Your task to perform on an android device: turn off improve location accuracy Image 0: 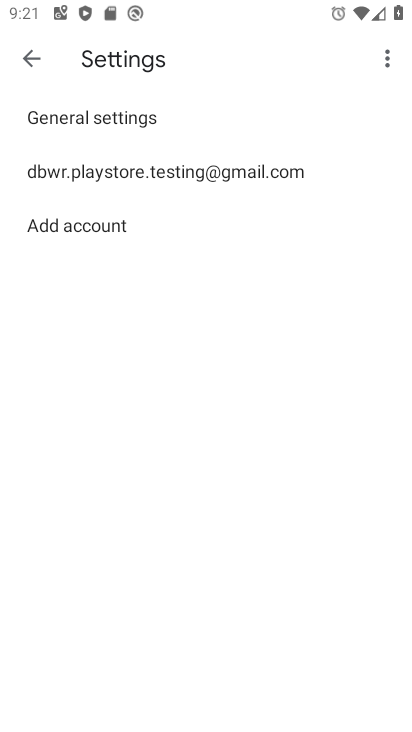
Step 0: drag from (166, 578) to (257, 245)
Your task to perform on an android device: turn off improve location accuracy Image 1: 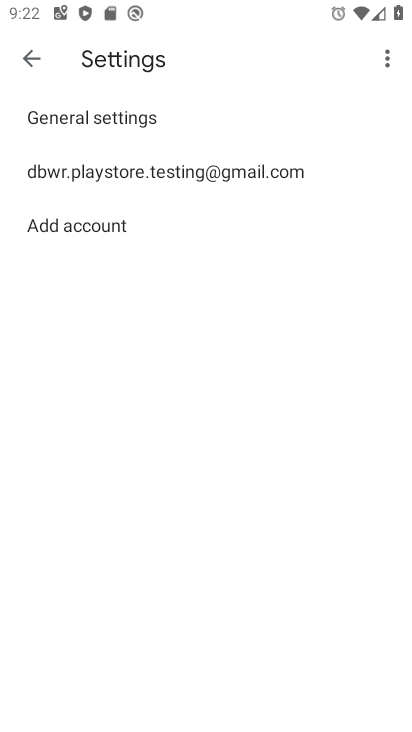
Step 1: press home button
Your task to perform on an android device: turn off improve location accuracy Image 2: 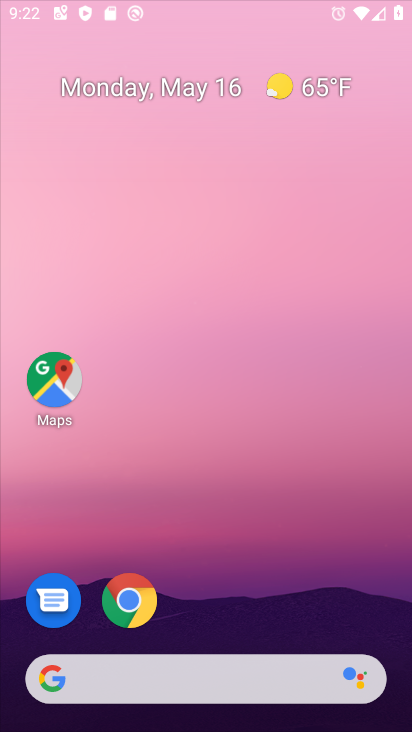
Step 2: drag from (169, 611) to (255, 129)
Your task to perform on an android device: turn off improve location accuracy Image 3: 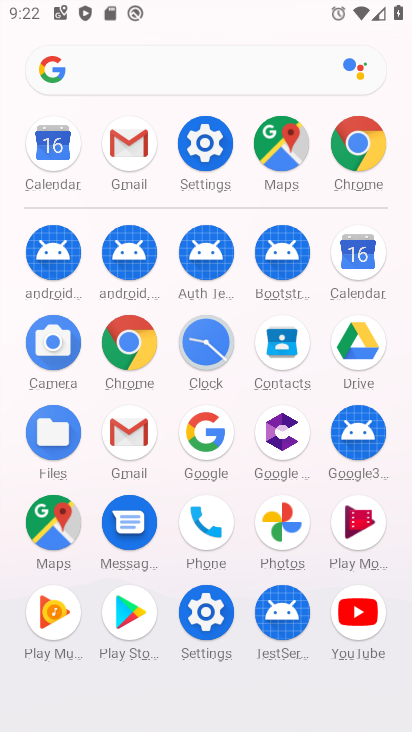
Step 3: click (198, 138)
Your task to perform on an android device: turn off improve location accuracy Image 4: 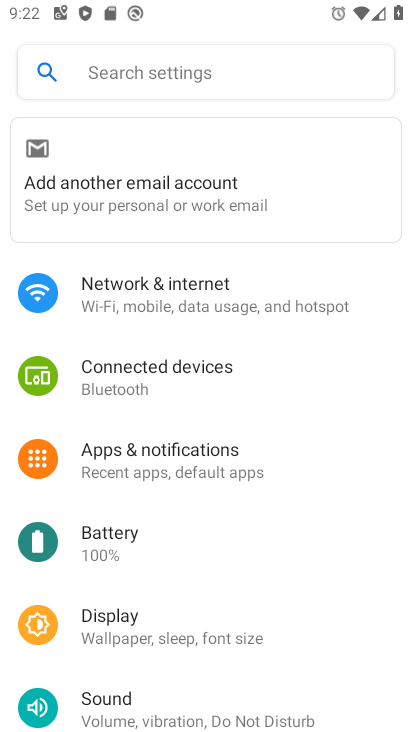
Step 4: drag from (210, 645) to (313, 133)
Your task to perform on an android device: turn off improve location accuracy Image 5: 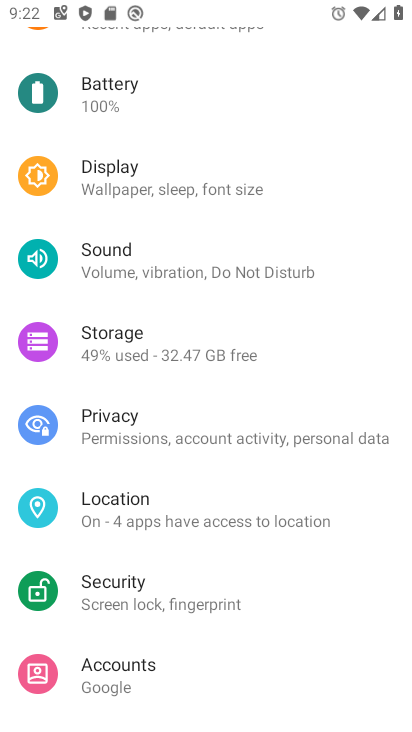
Step 5: drag from (223, 626) to (286, 248)
Your task to perform on an android device: turn off improve location accuracy Image 6: 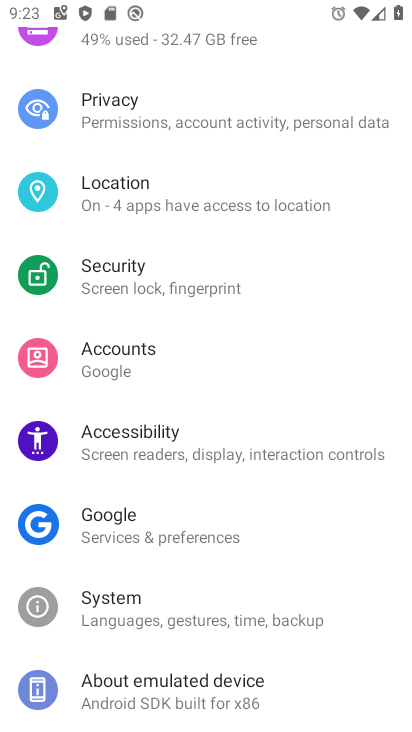
Step 6: click (141, 183)
Your task to perform on an android device: turn off improve location accuracy Image 7: 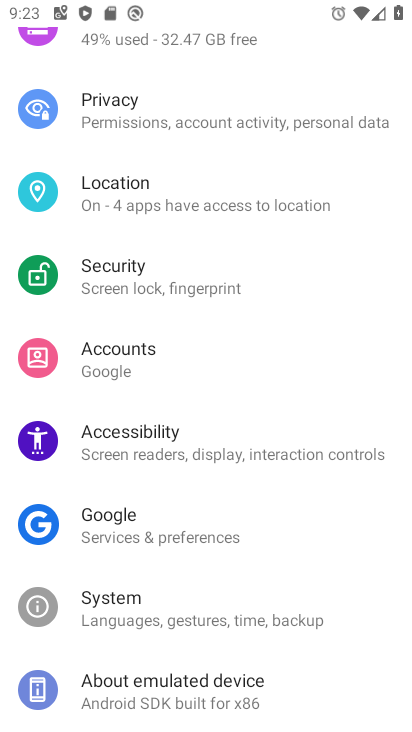
Step 7: click (141, 183)
Your task to perform on an android device: turn off improve location accuracy Image 8: 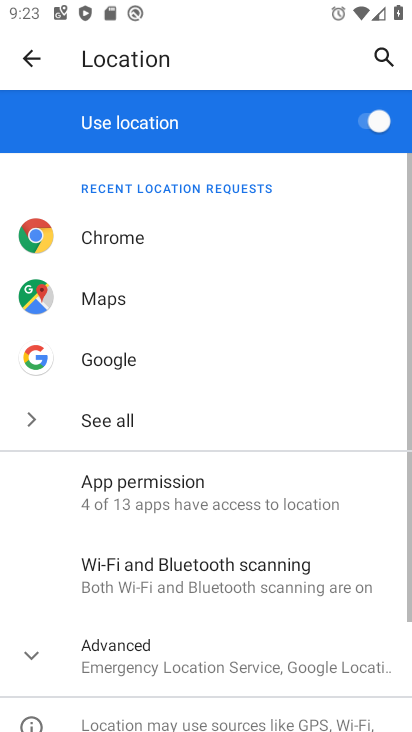
Step 8: click (341, 119)
Your task to perform on an android device: turn off improve location accuracy Image 9: 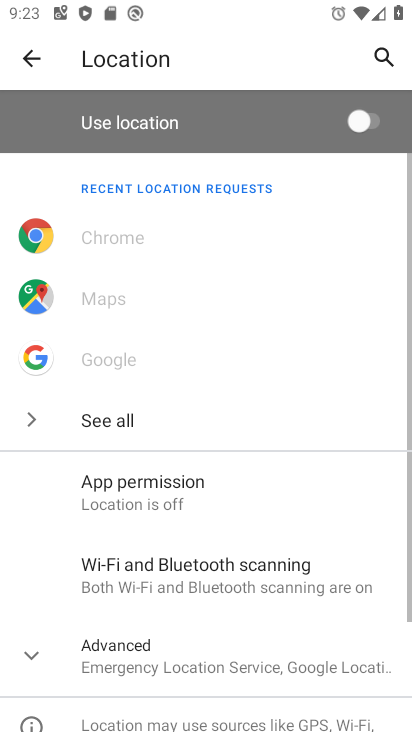
Step 9: task complete